Your task to perform on an android device: turn off sleep mode Image 0: 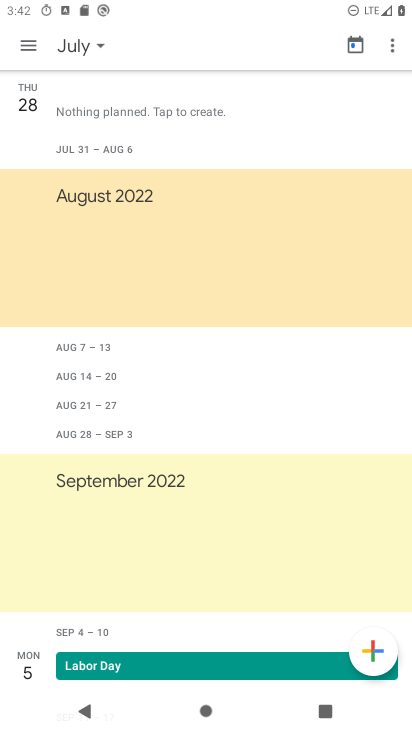
Step 0: press home button
Your task to perform on an android device: turn off sleep mode Image 1: 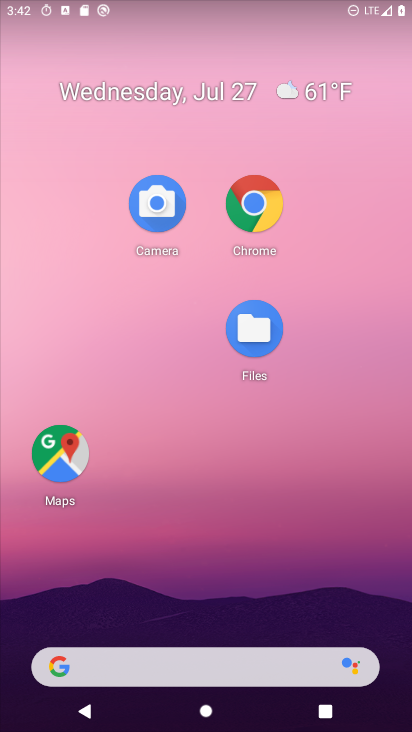
Step 1: drag from (181, 608) to (185, 199)
Your task to perform on an android device: turn off sleep mode Image 2: 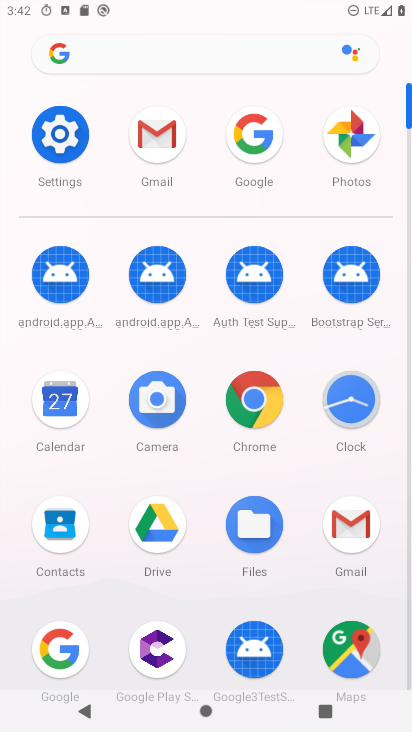
Step 2: click (59, 160)
Your task to perform on an android device: turn off sleep mode Image 3: 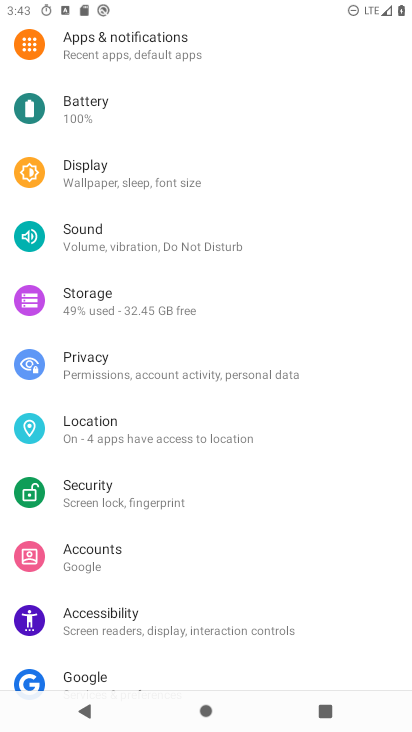
Step 3: click (147, 181)
Your task to perform on an android device: turn off sleep mode Image 4: 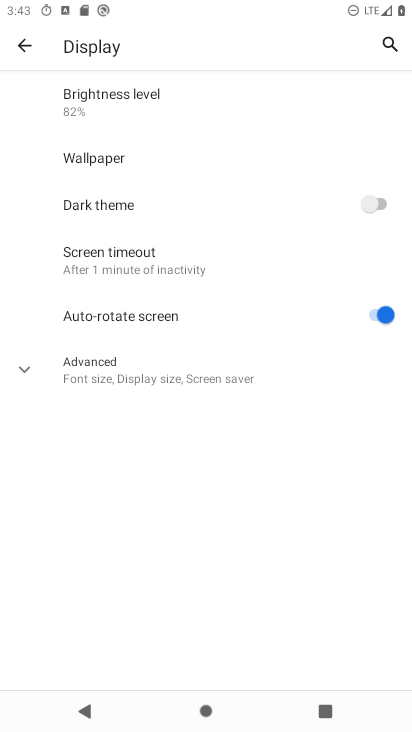
Step 4: click (165, 271)
Your task to perform on an android device: turn off sleep mode Image 5: 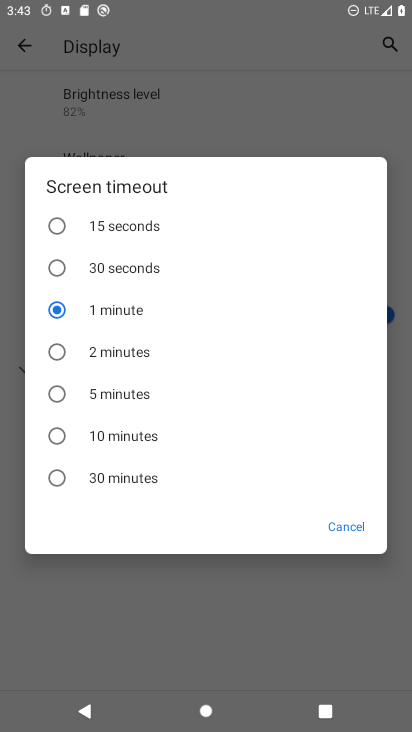
Step 5: click (113, 382)
Your task to perform on an android device: turn off sleep mode Image 6: 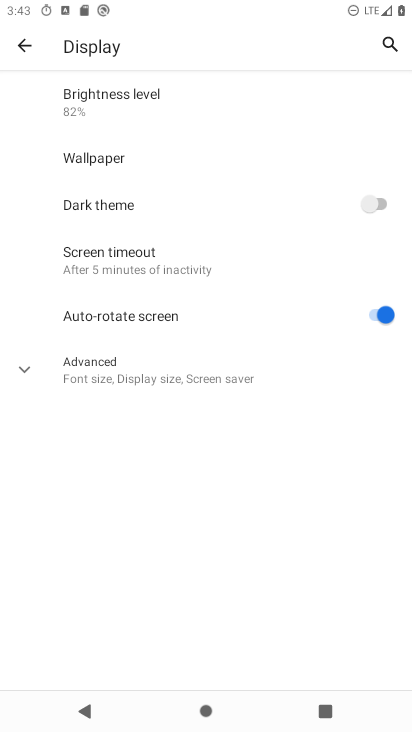
Step 6: task complete